Your task to perform on an android device: Go to CNN.com Image 0: 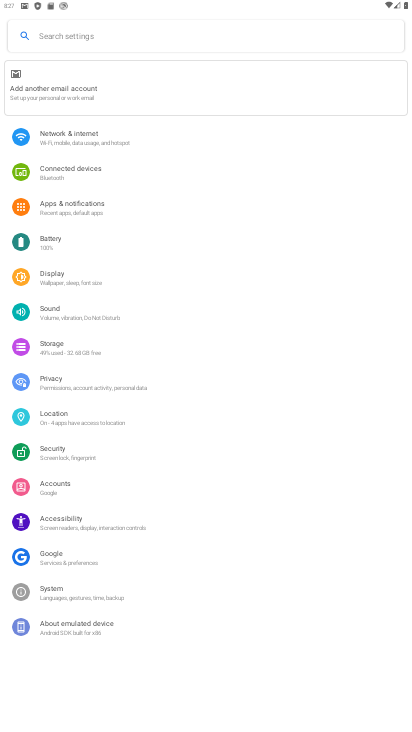
Step 0: press home button
Your task to perform on an android device: Go to CNN.com Image 1: 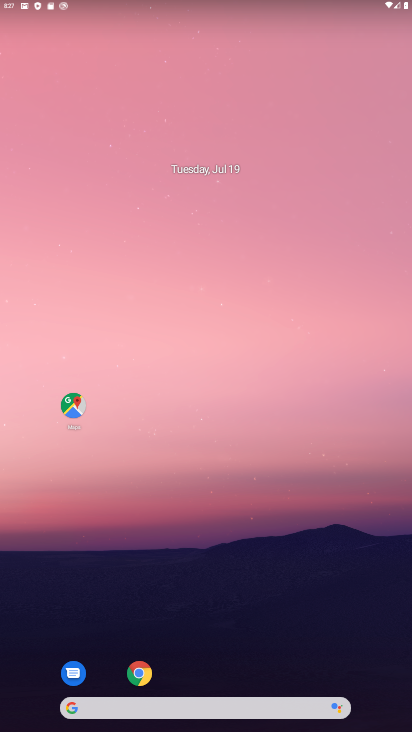
Step 1: click (139, 674)
Your task to perform on an android device: Go to CNN.com Image 2: 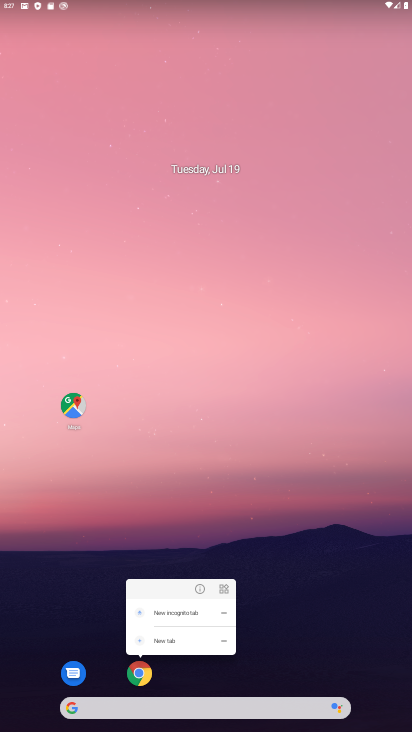
Step 2: click (138, 668)
Your task to perform on an android device: Go to CNN.com Image 3: 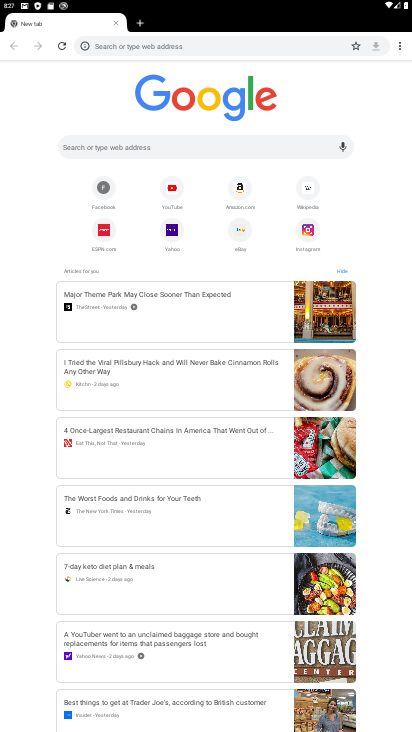
Step 3: click (221, 137)
Your task to perform on an android device: Go to CNN.com Image 4: 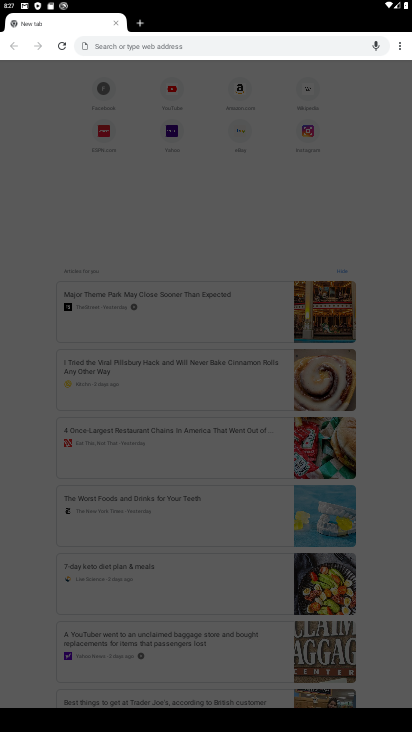
Step 4: type "CNN.com"
Your task to perform on an android device: Go to CNN.com Image 5: 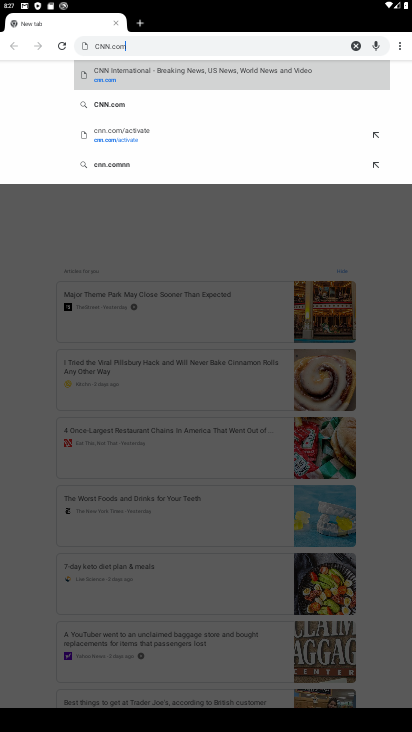
Step 5: click (244, 81)
Your task to perform on an android device: Go to CNN.com Image 6: 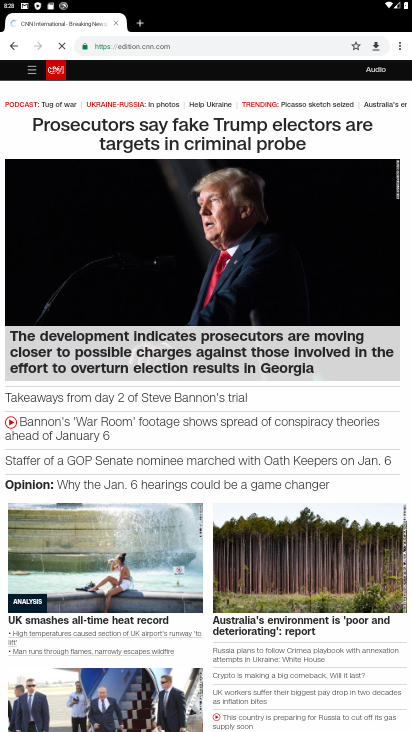
Step 6: task complete